Your task to perform on an android device: Go to Maps Image 0: 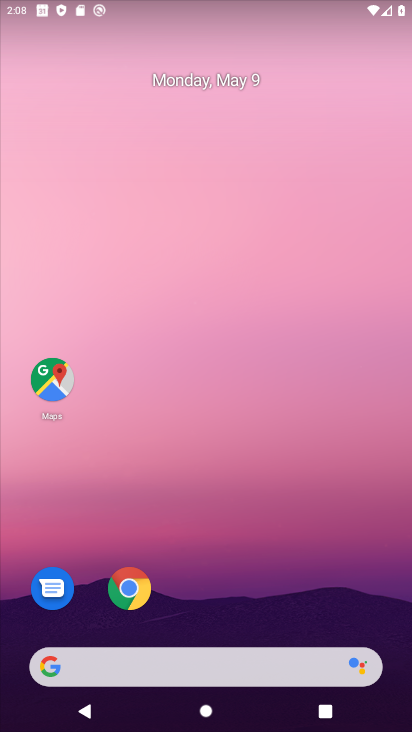
Step 0: drag from (306, 496) to (275, 153)
Your task to perform on an android device: Go to Maps Image 1: 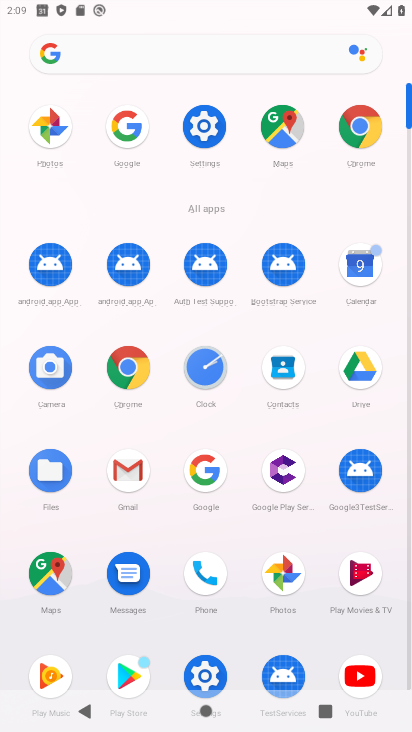
Step 1: click (290, 129)
Your task to perform on an android device: Go to Maps Image 2: 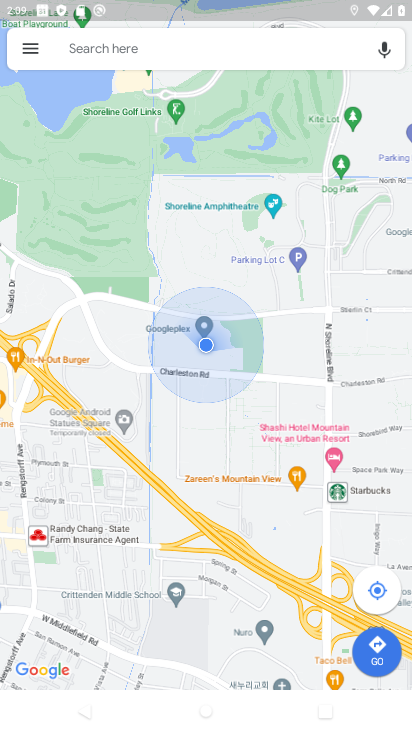
Step 2: task complete